Your task to perform on an android device: Open Yahoo.com Image 0: 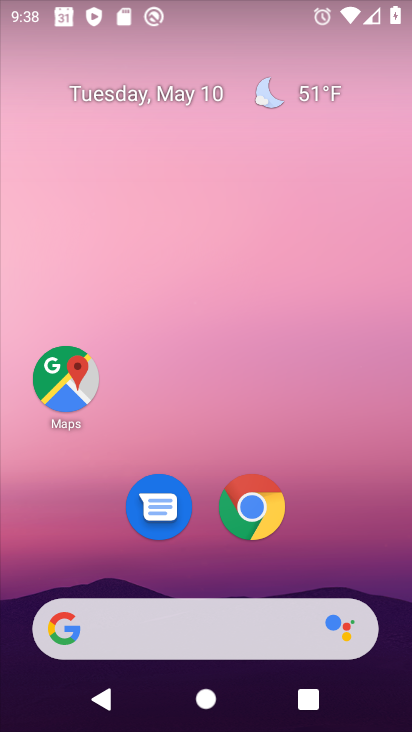
Step 0: click (254, 515)
Your task to perform on an android device: Open Yahoo.com Image 1: 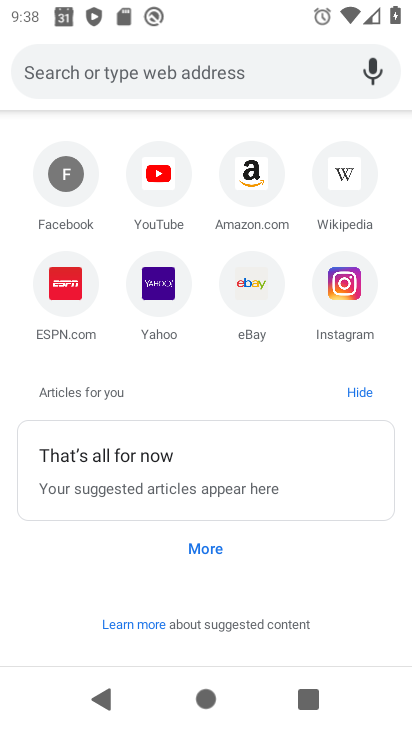
Step 1: click (153, 283)
Your task to perform on an android device: Open Yahoo.com Image 2: 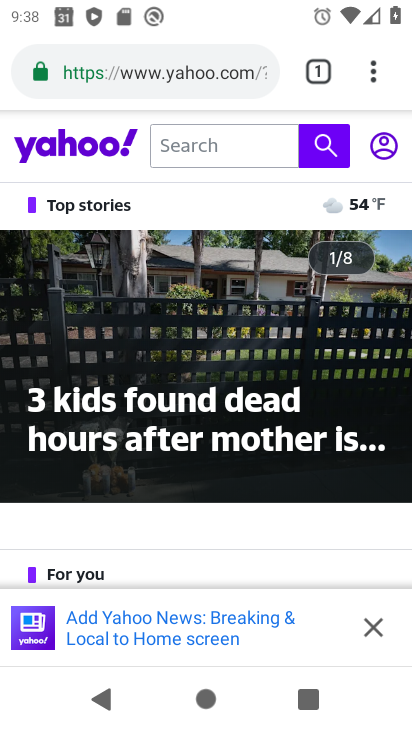
Step 2: task complete